Your task to perform on an android device: change the upload size in google photos Image 0: 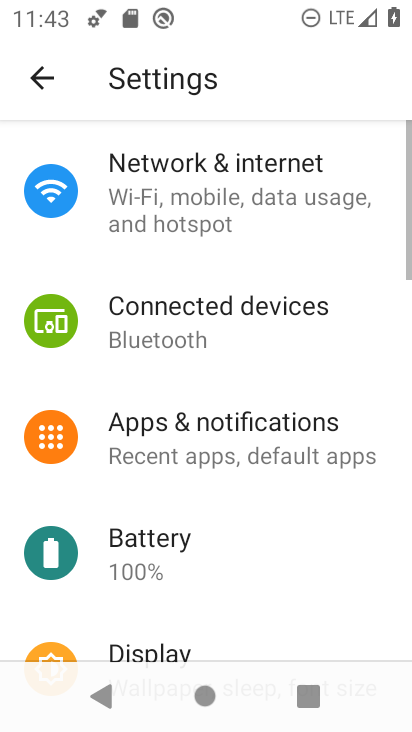
Step 0: press home button
Your task to perform on an android device: change the upload size in google photos Image 1: 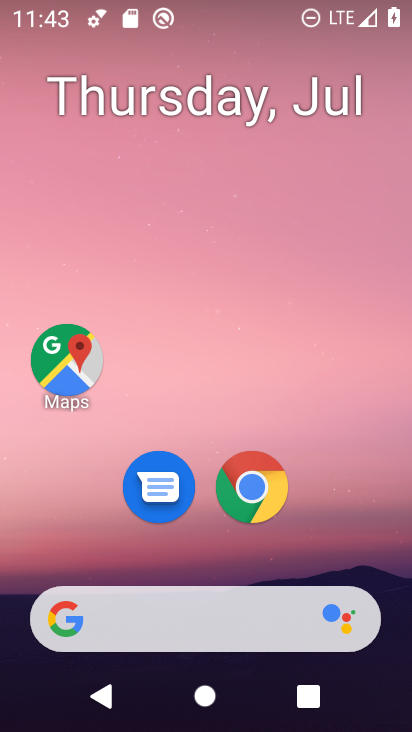
Step 1: drag from (288, 707) to (218, 161)
Your task to perform on an android device: change the upload size in google photos Image 2: 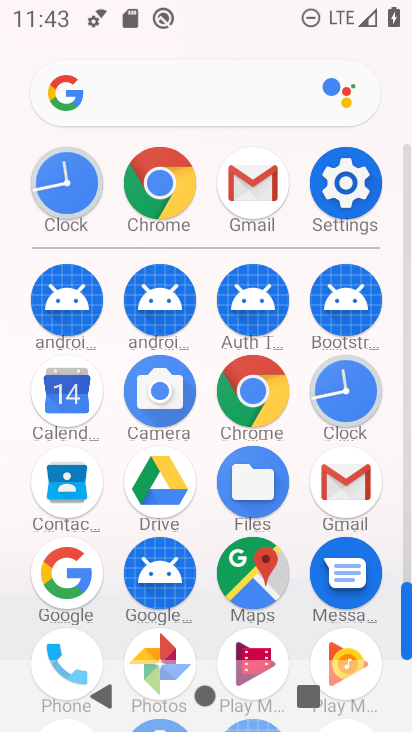
Step 2: drag from (224, 443) to (211, 153)
Your task to perform on an android device: change the upload size in google photos Image 3: 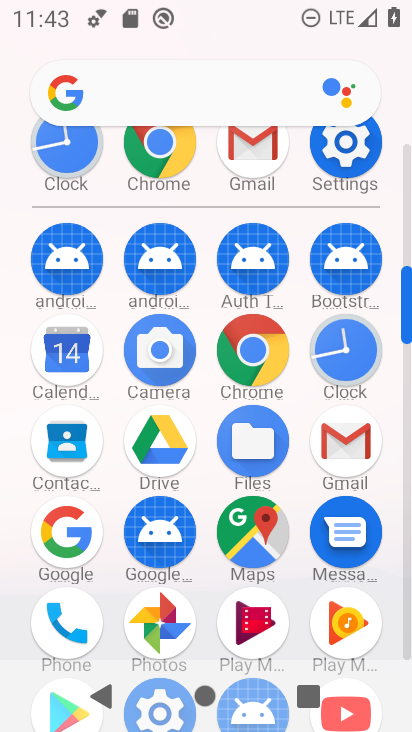
Step 3: drag from (167, 397) to (167, 148)
Your task to perform on an android device: change the upload size in google photos Image 4: 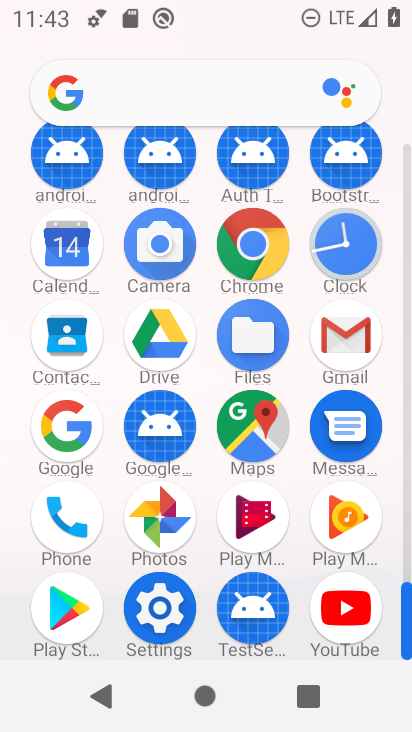
Step 4: click (167, 524)
Your task to perform on an android device: change the upload size in google photos Image 5: 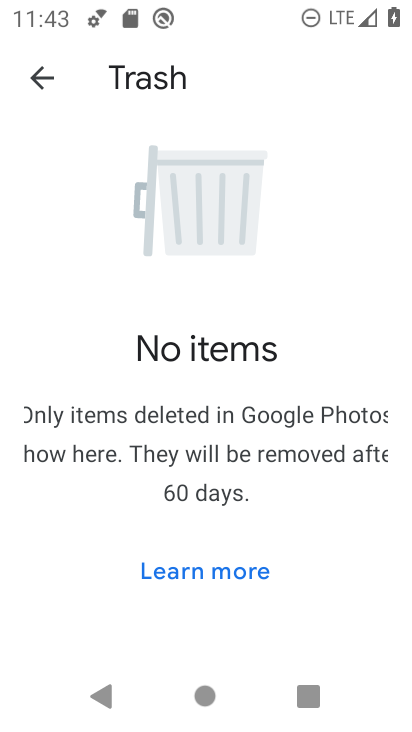
Step 5: click (52, 82)
Your task to perform on an android device: change the upload size in google photos Image 6: 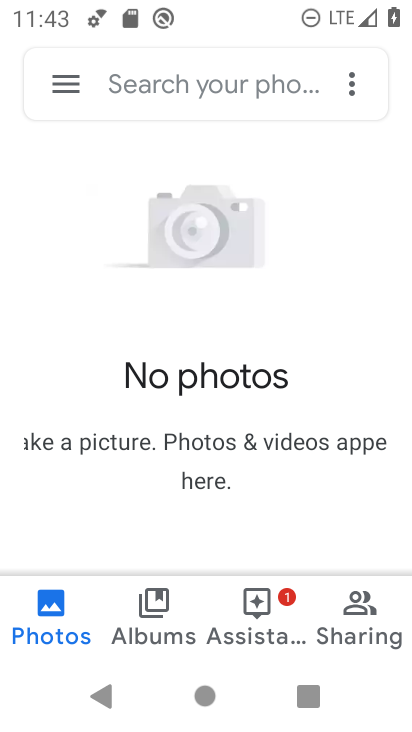
Step 6: click (71, 82)
Your task to perform on an android device: change the upload size in google photos Image 7: 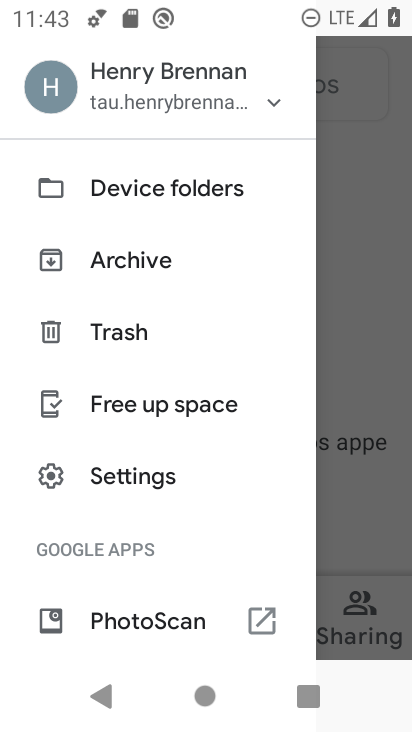
Step 7: click (117, 474)
Your task to perform on an android device: change the upload size in google photos Image 8: 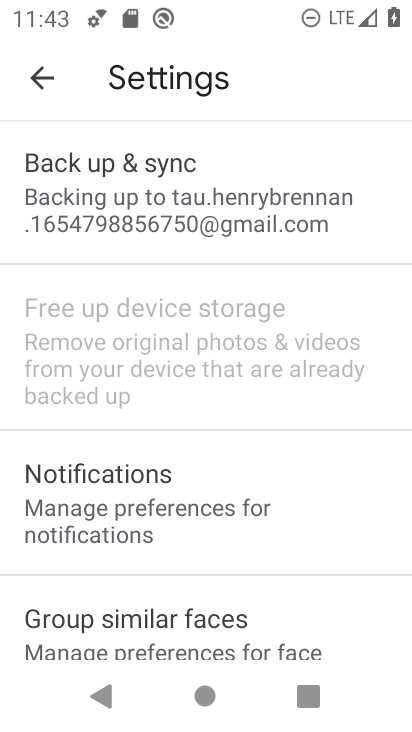
Step 8: click (103, 213)
Your task to perform on an android device: change the upload size in google photos Image 9: 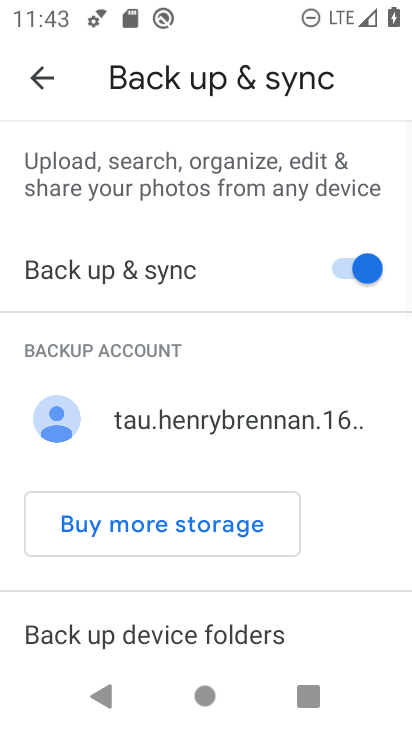
Step 9: drag from (163, 520) to (164, 186)
Your task to perform on an android device: change the upload size in google photos Image 10: 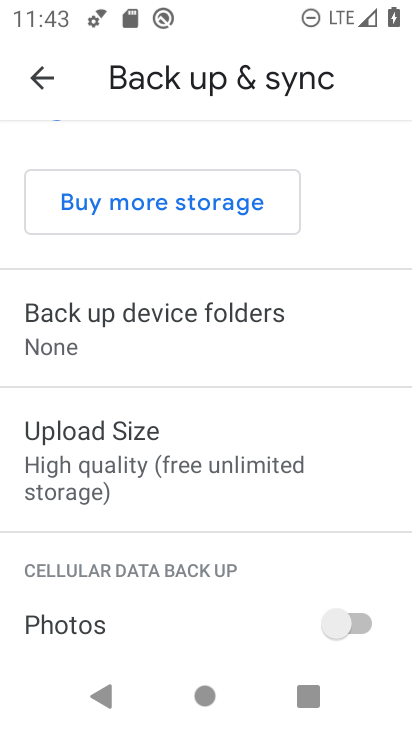
Step 10: click (153, 466)
Your task to perform on an android device: change the upload size in google photos Image 11: 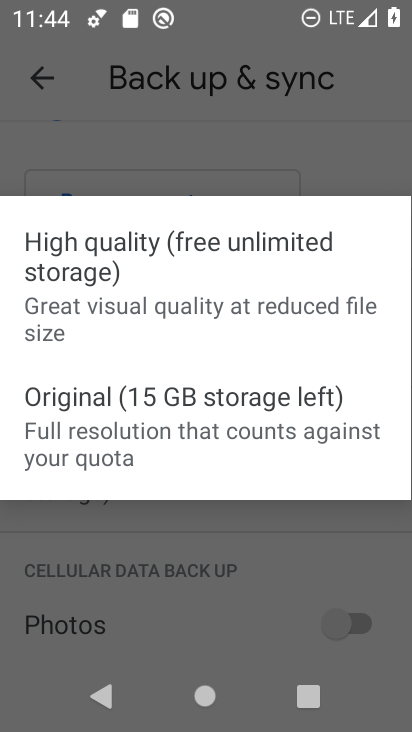
Step 11: click (174, 435)
Your task to perform on an android device: change the upload size in google photos Image 12: 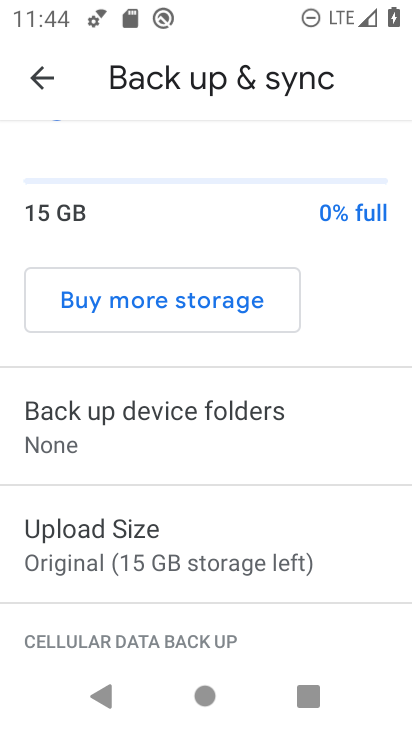
Step 12: task complete